Your task to perform on an android device: Go to Google Image 0: 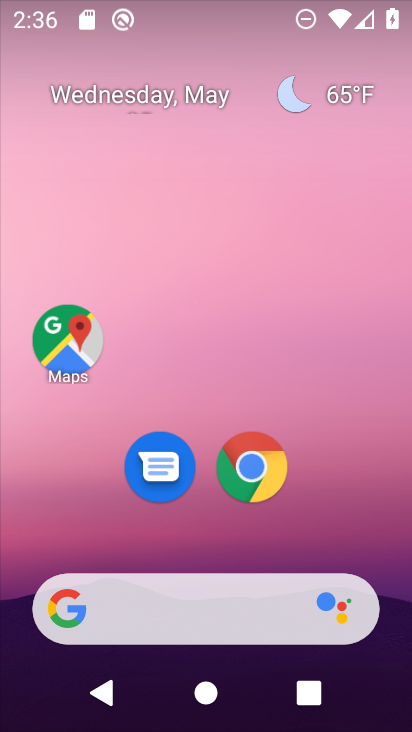
Step 0: drag from (292, 542) to (305, 234)
Your task to perform on an android device: Go to Google Image 1: 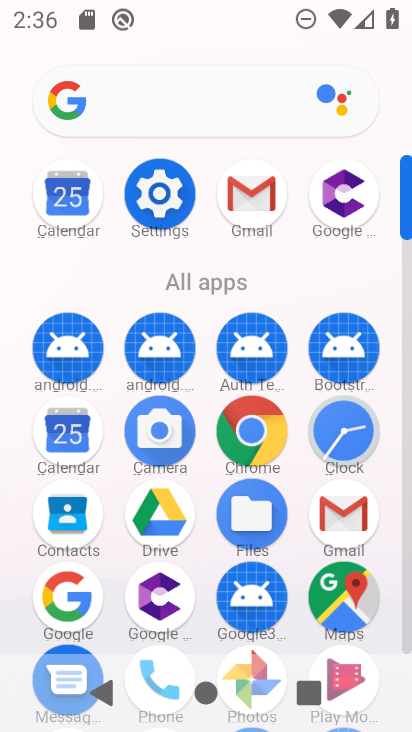
Step 1: click (48, 598)
Your task to perform on an android device: Go to Google Image 2: 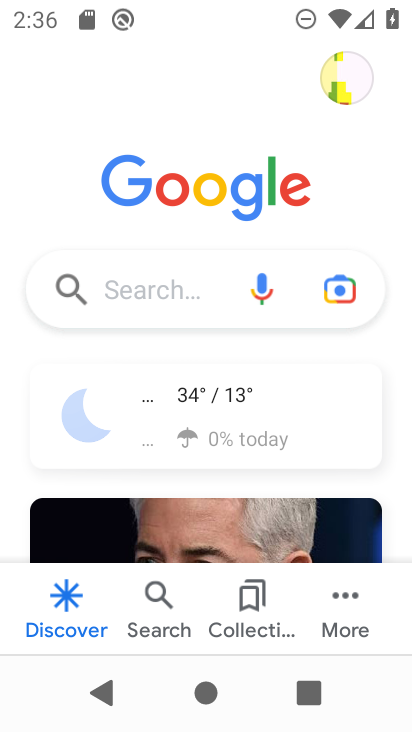
Step 2: task complete